Your task to perform on an android device: Is it going to rain today? Image 0: 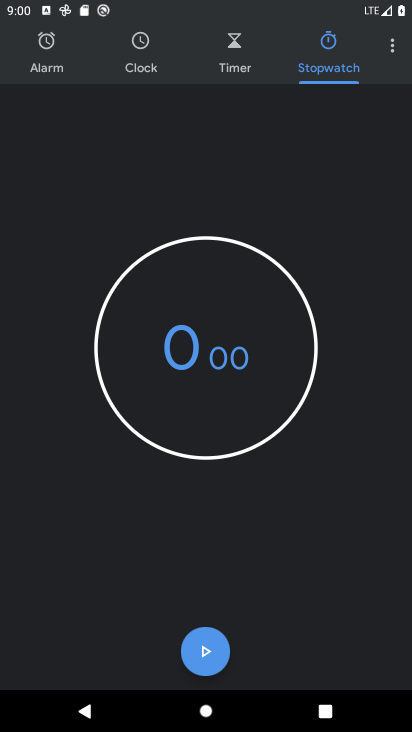
Step 0: press home button
Your task to perform on an android device: Is it going to rain today? Image 1: 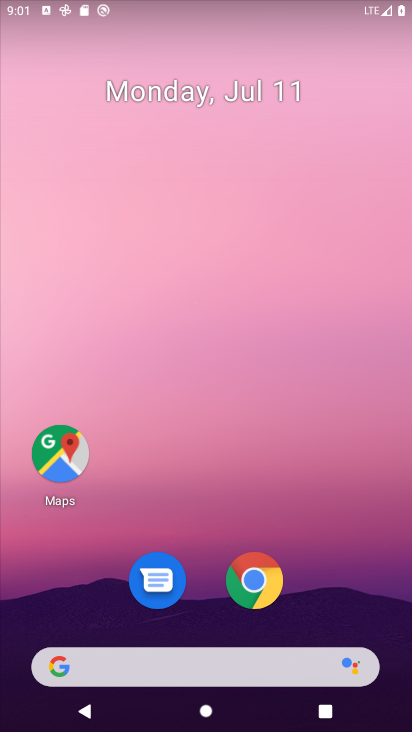
Step 1: drag from (259, 499) to (294, 26)
Your task to perform on an android device: Is it going to rain today? Image 2: 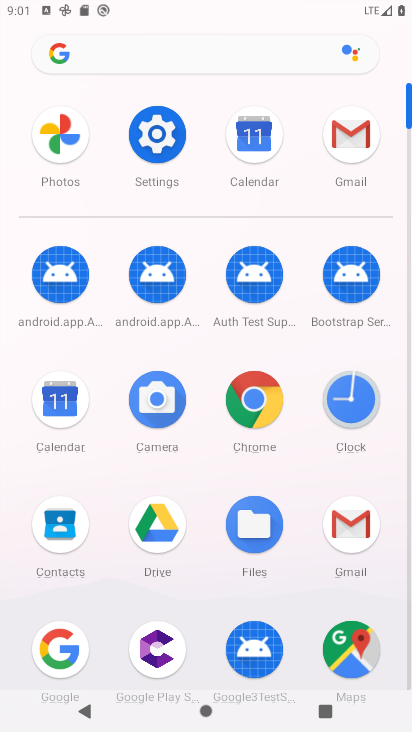
Step 2: click (235, 44)
Your task to perform on an android device: Is it going to rain today? Image 3: 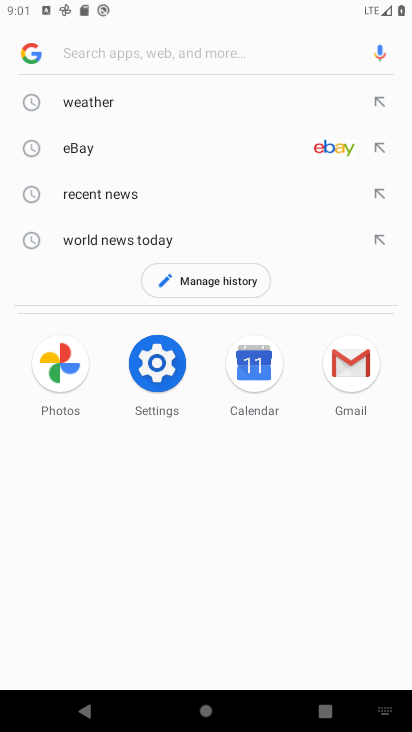
Step 3: click (103, 92)
Your task to perform on an android device: Is it going to rain today? Image 4: 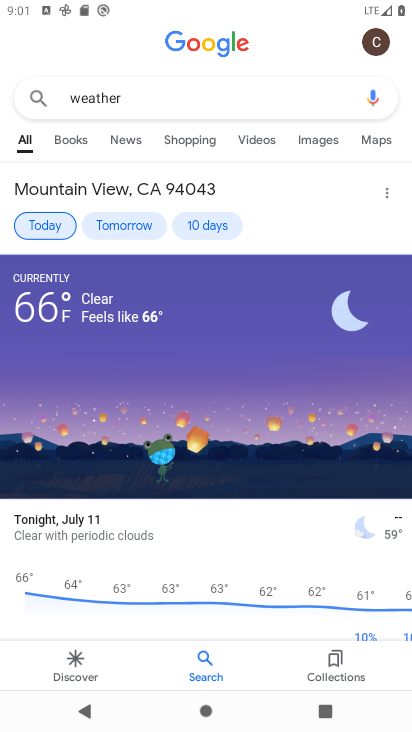
Step 4: click (44, 225)
Your task to perform on an android device: Is it going to rain today? Image 5: 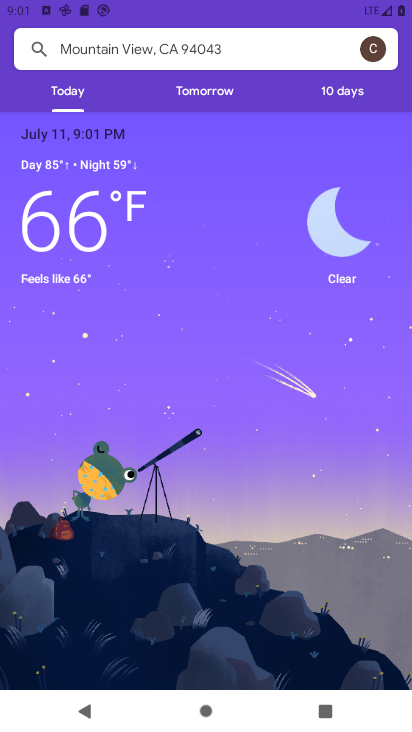
Step 5: task complete